Your task to perform on an android device: Search for pizza restaurants on Maps Image 0: 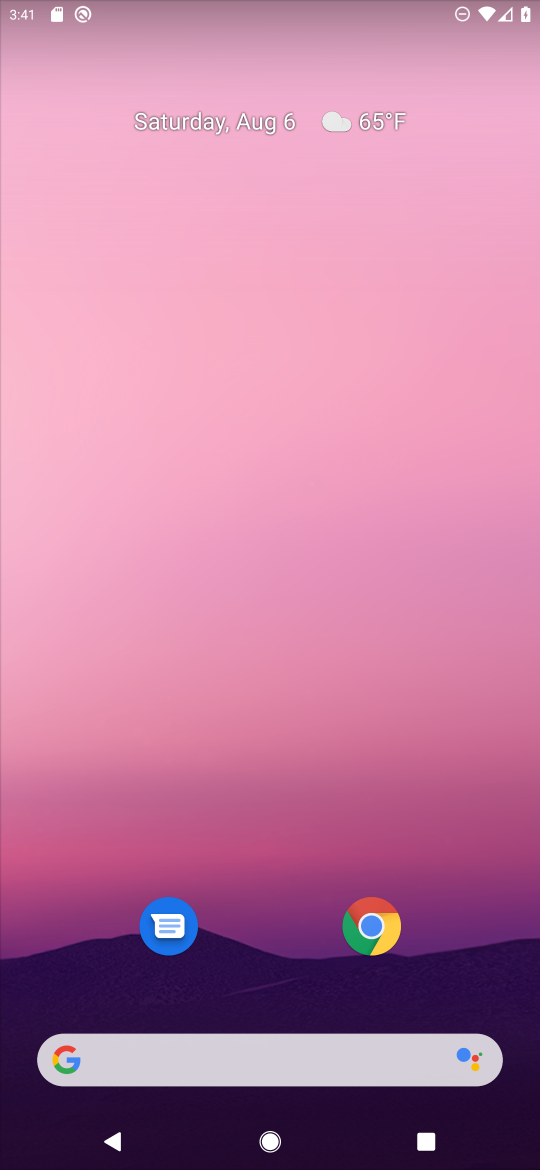
Step 0: drag from (298, 820) to (284, 274)
Your task to perform on an android device: Search for pizza restaurants on Maps Image 1: 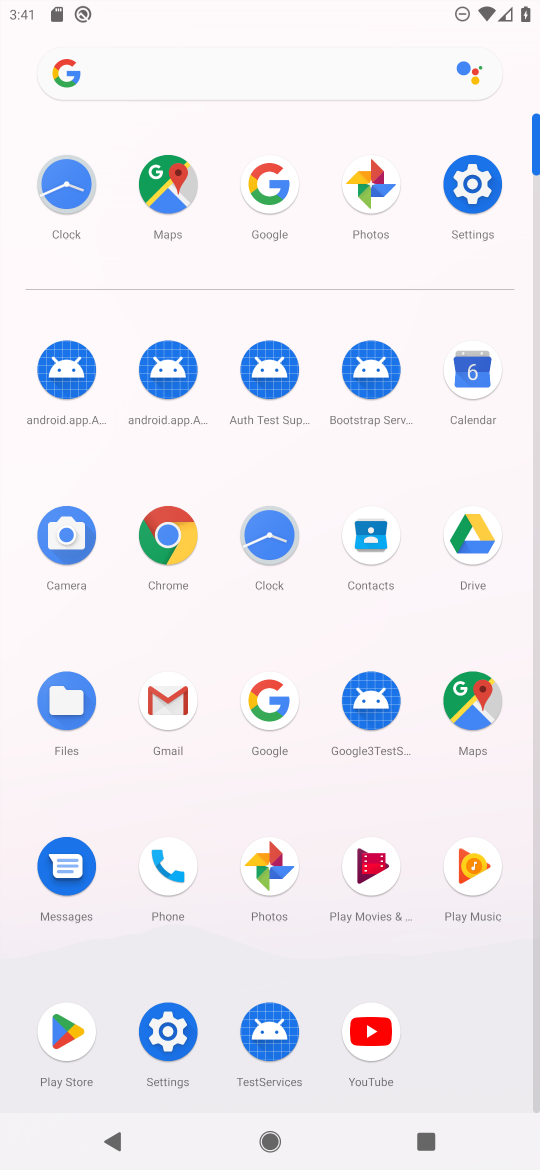
Step 1: click (191, 169)
Your task to perform on an android device: Search for pizza restaurants on Maps Image 2: 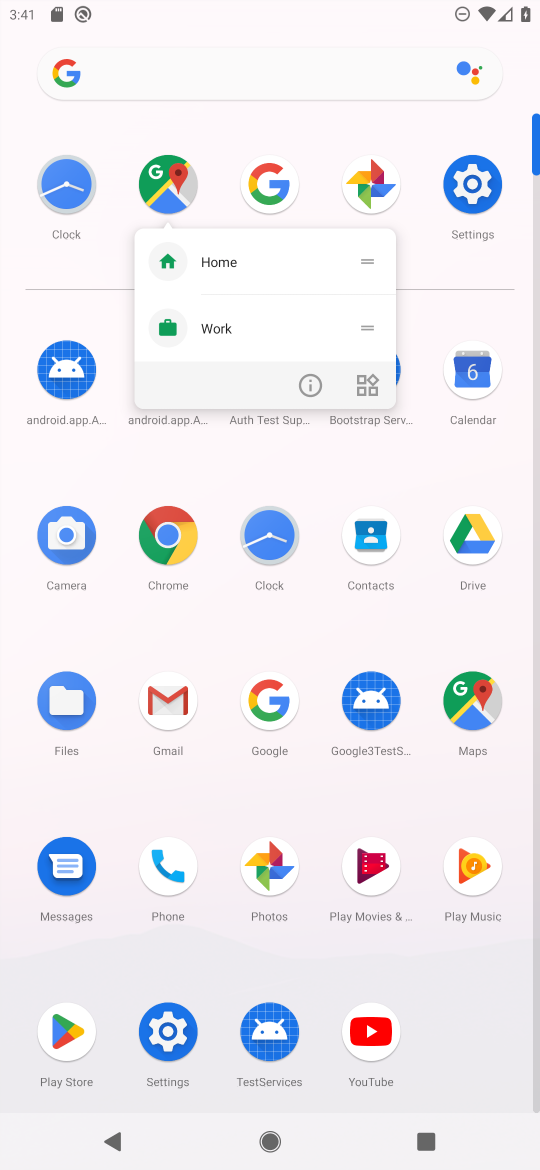
Step 2: click (191, 169)
Your task to perform on an android device: Search for pizza restaurants on Maps Image 3: 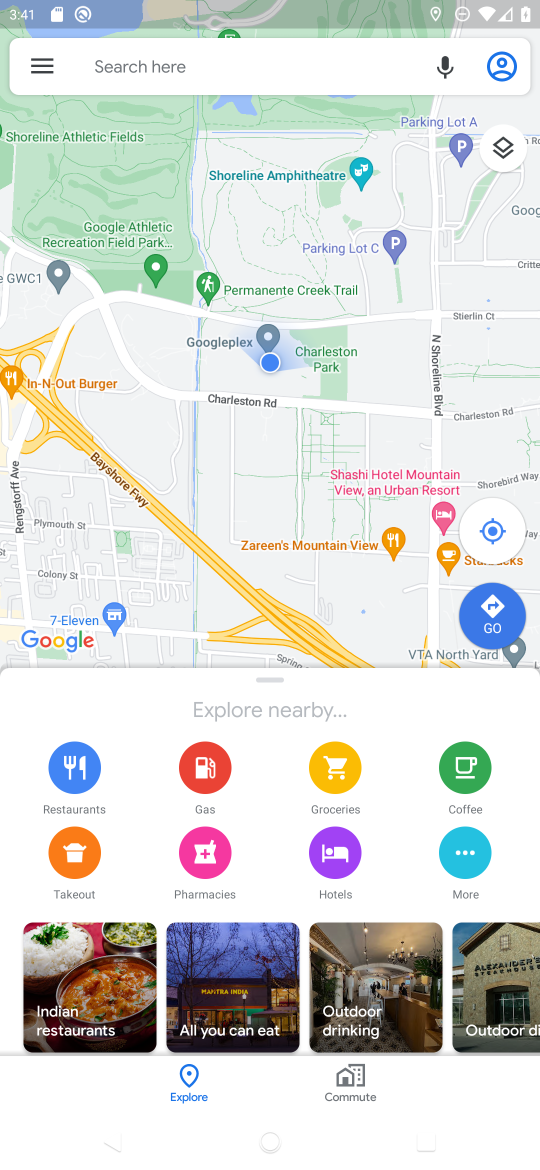
Step 3: click (241, 58)
Your task to perform on an android device: Search for pizza restaurants on Maps Image 4: 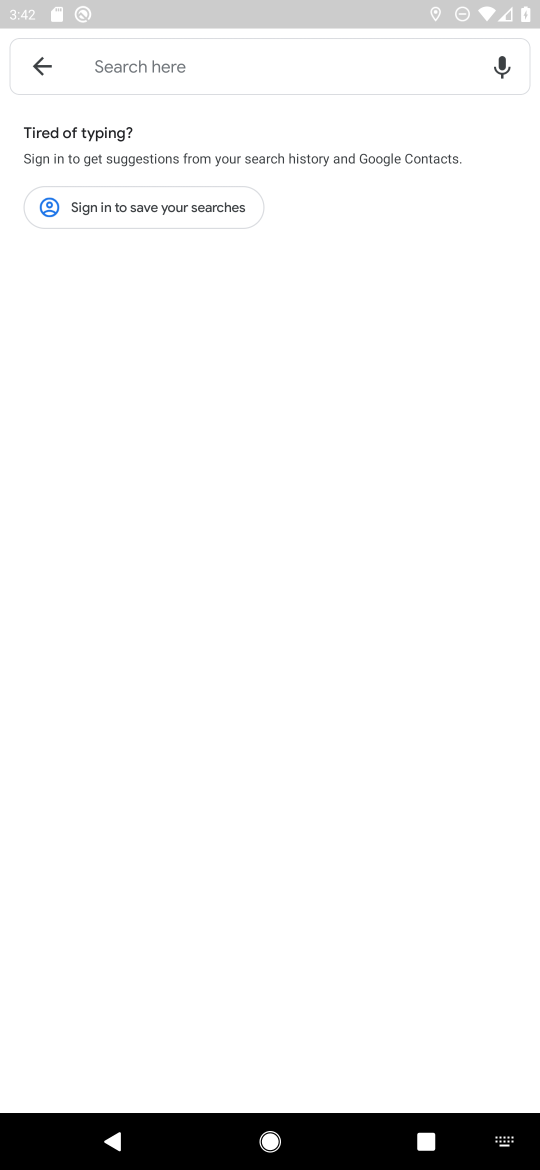
Step 4: type "pizza restaurants"
Your task to perform on an android device: Search for pizza restaurants on Maps Image 5: 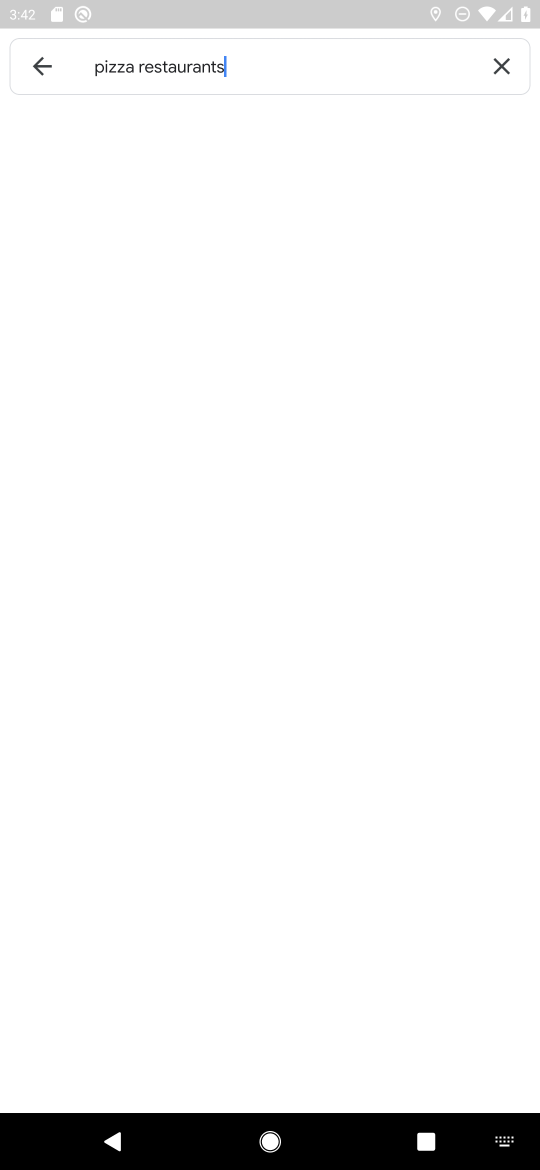
Step 5: type ""
Your task to perform on an android device: Search for pizza restaurants on Maps Image 6: 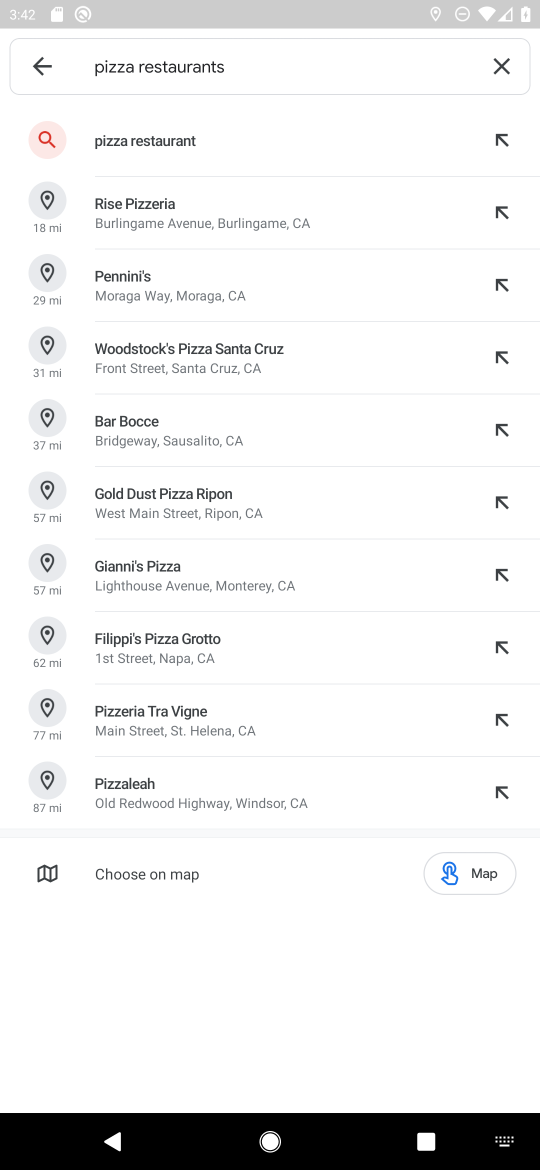
Step 6: click (162, 145)
Your task to perform on an android device: Search for pizza restaurants on Maps Image 7: 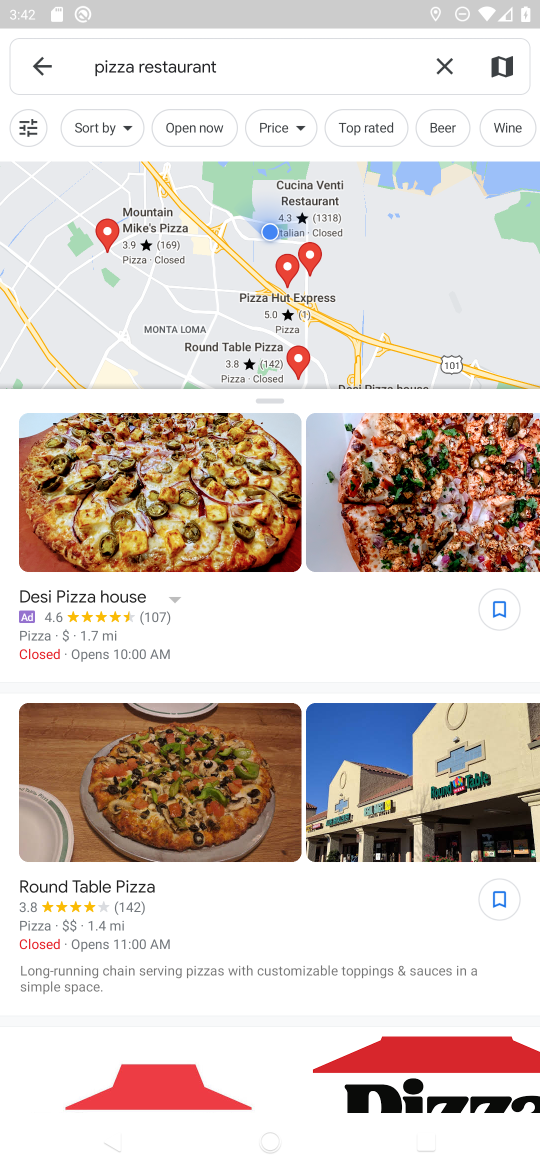
Step 7: task complete